Your task to perform on an android device: Open display settings Image 0: 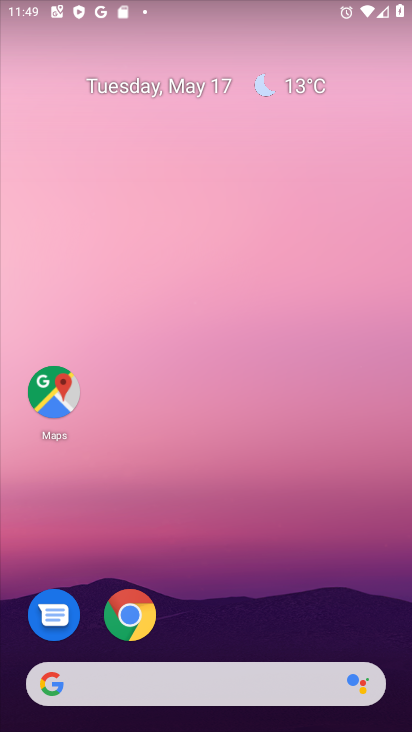
Step 0: drag from (271, 612) to (241, 141)
Your task to perform on an android device: Open display settings Image 1: 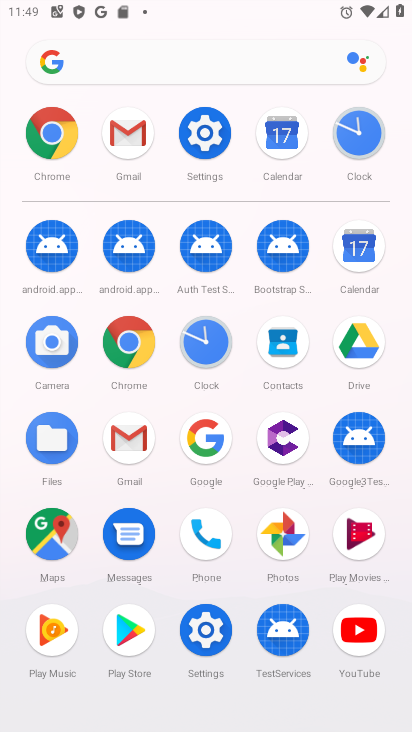
Step 1: click (213, 135)
Your task to perform on an android device: Open display settings Image 2: 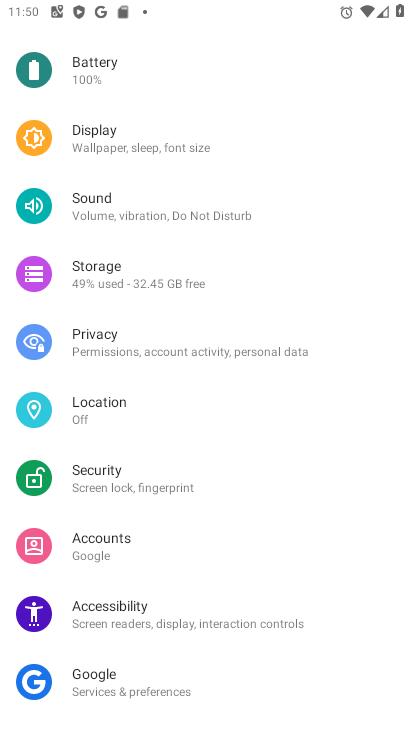
Step 2: click (123, 151)
Your task to perform on an android device: Open display settings Image 3: 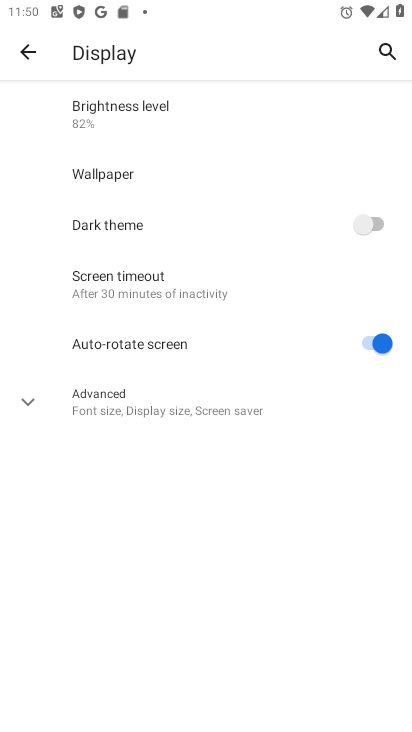
Step 3: task complete